Your task to perform on an android device: move a message to another label in the gmail app Image 0: 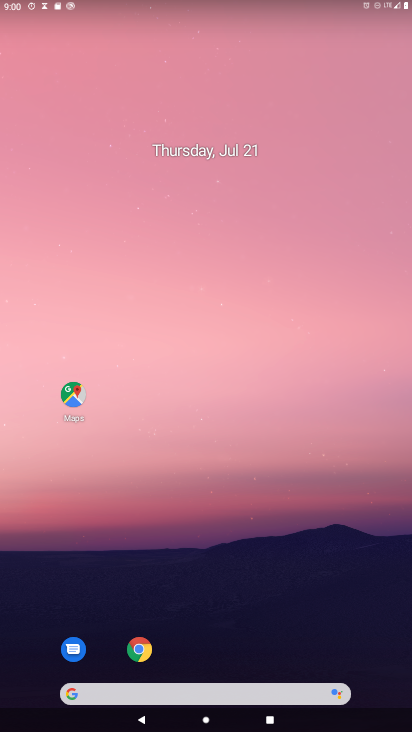
Step 0: drag from (346, 668) to (105, 40)
Your task to perform on an android device: move a message to another label in the gmail app Image 1: 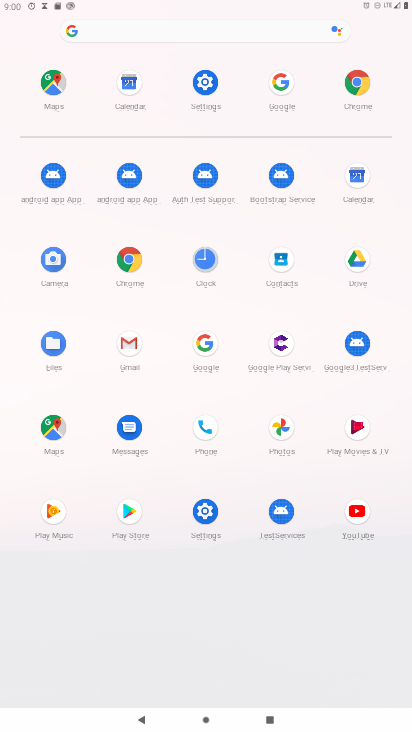
Step 1: click (134, 349)
Your task to perform on an android device: move a message to another label in the gmail app Image 2: 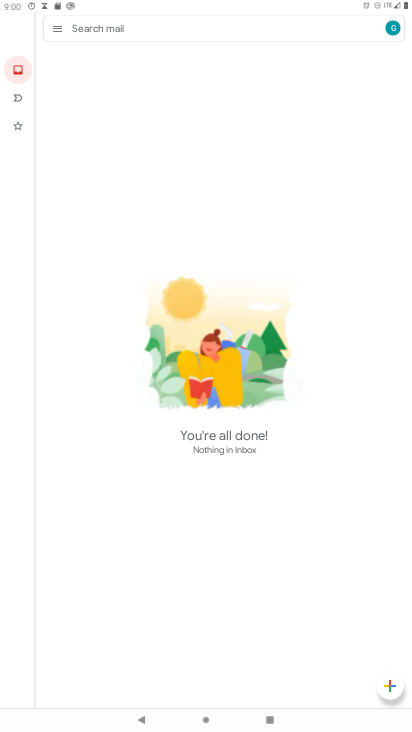
Step 2: task complete